Your task to perform on an android device: turn off location Image 0: 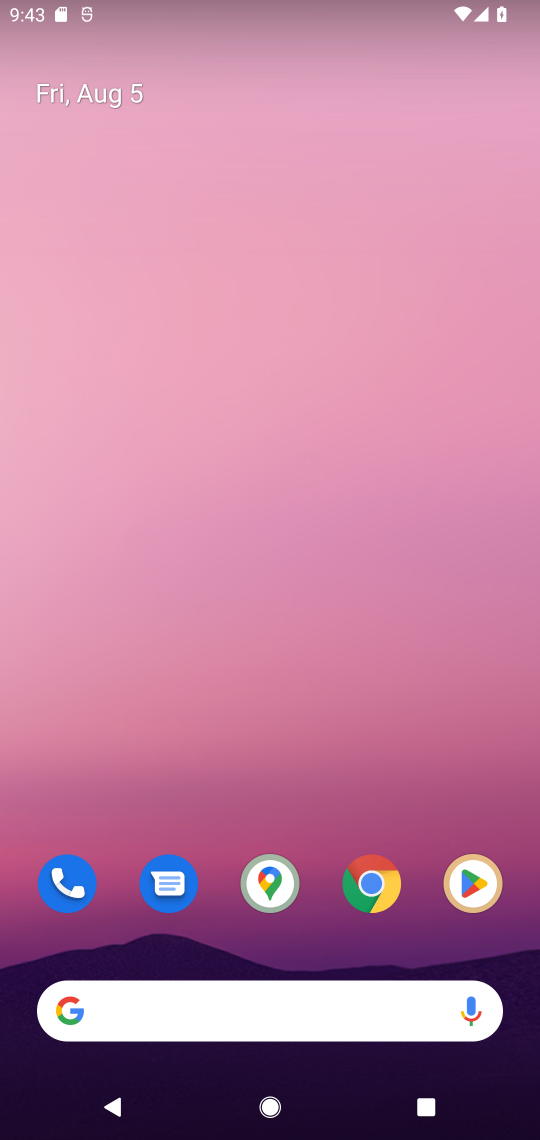
Step 0: drag from (226, 954) to (398, 112)
Your task to perform on an android device: turn off location Image 1: 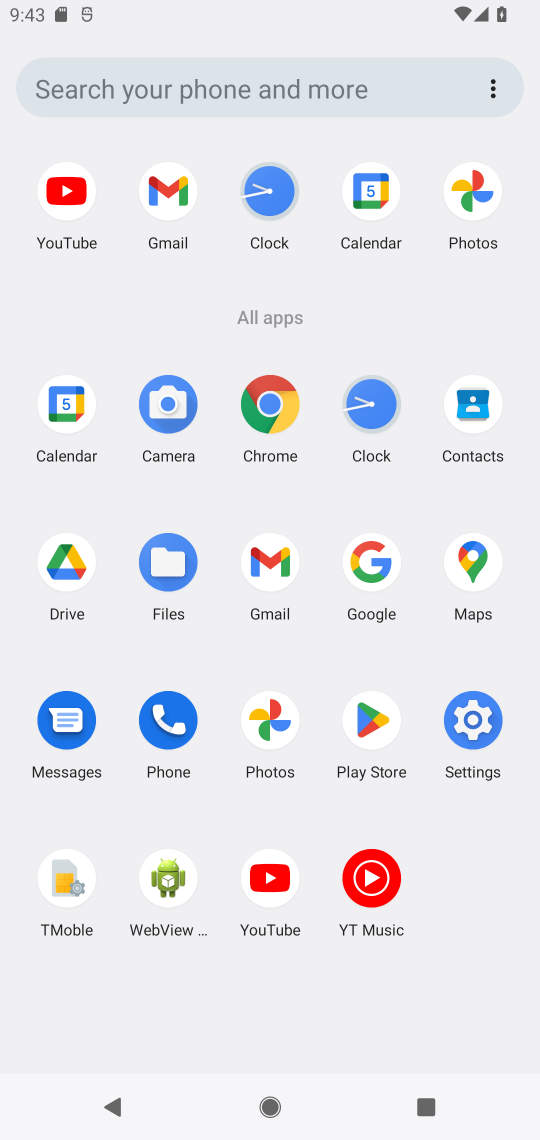
Step 1: click (466, 710)
Your task to perform on an android device: turn off location Image 2: 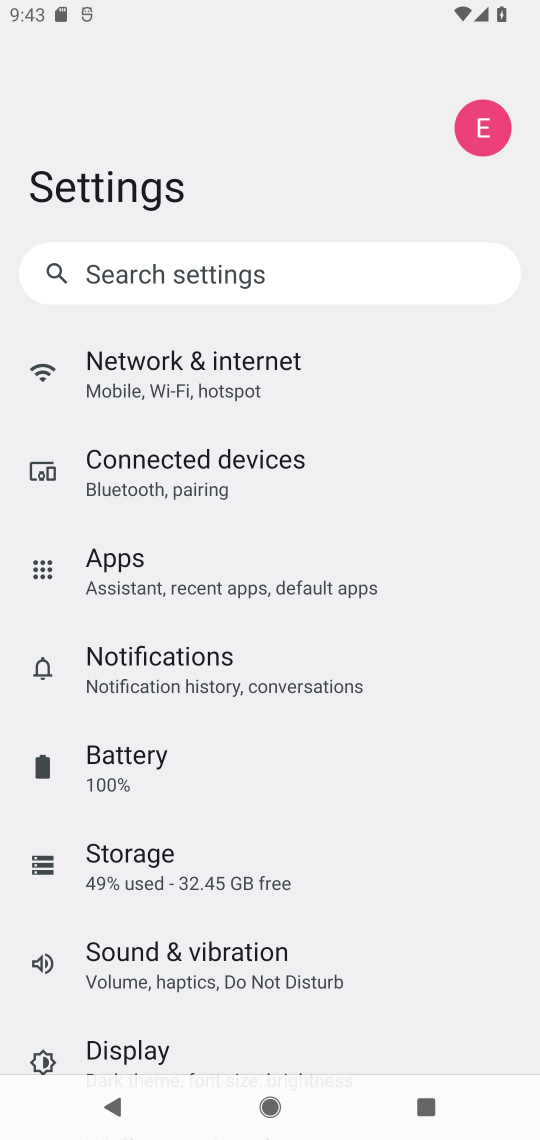
Step 2: drag from (174, 1031) to (362, 221)
Your task to perform on an android device: turn off location Image 3: 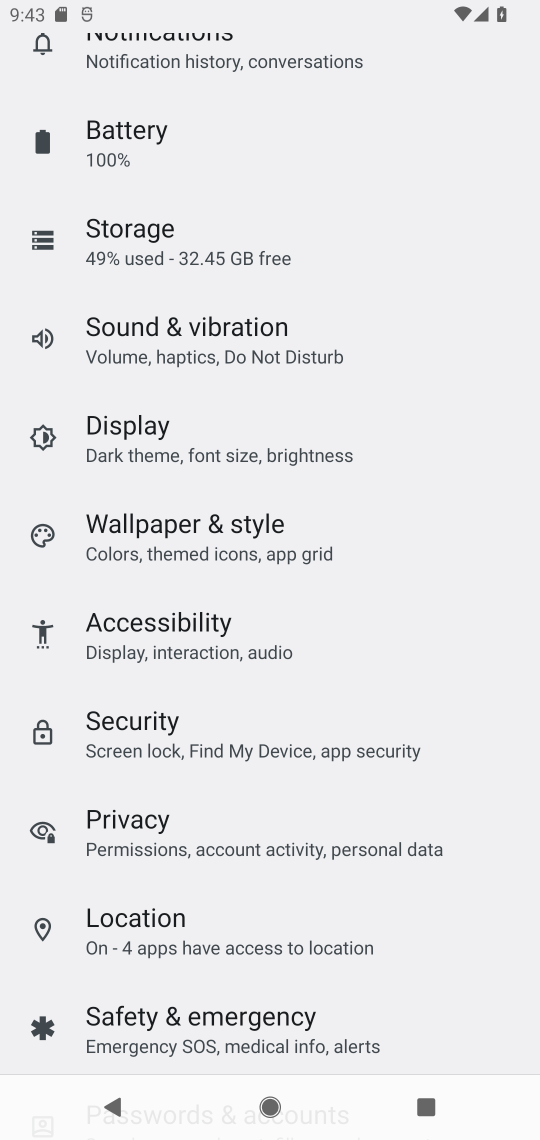
Step 3: click (153, 934)
Your task to perform on an android device: turn off location Image 4: 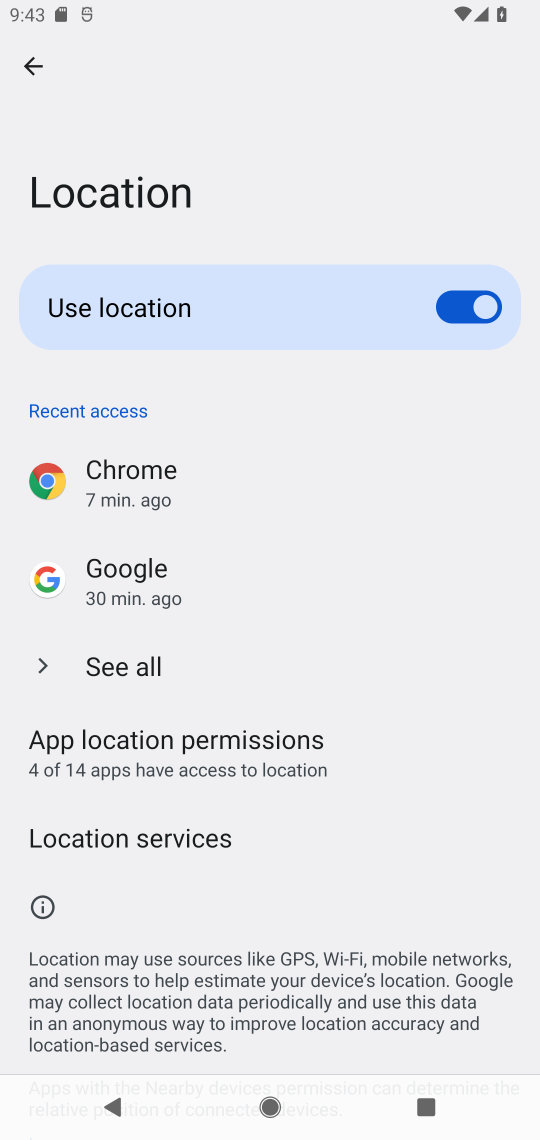
Step 4: click (486, 298)
Your task to perform on an android device: turn off location Image 5: 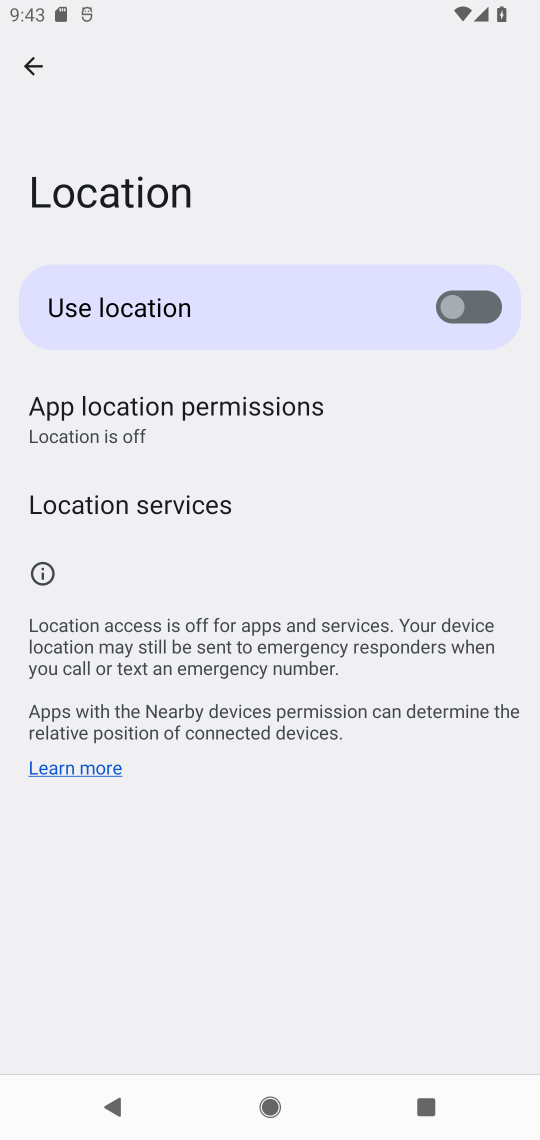
Step 5: task complete